Your task to perform on an android device: Check the news Image 0: 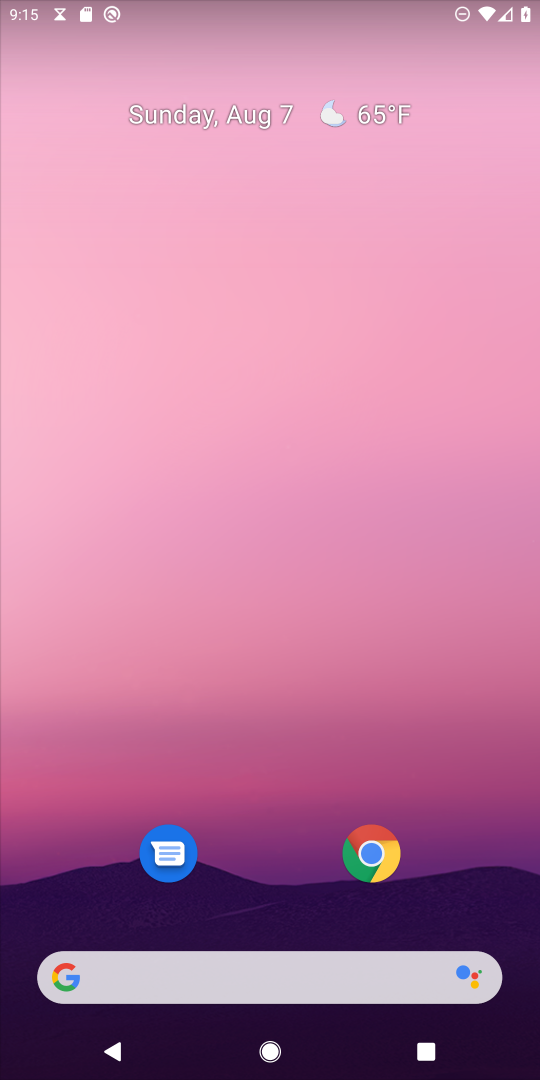
Step 0: drag from (216, 918) to (229, 324)
Your task to perform on an android device: Check the news Image 1: 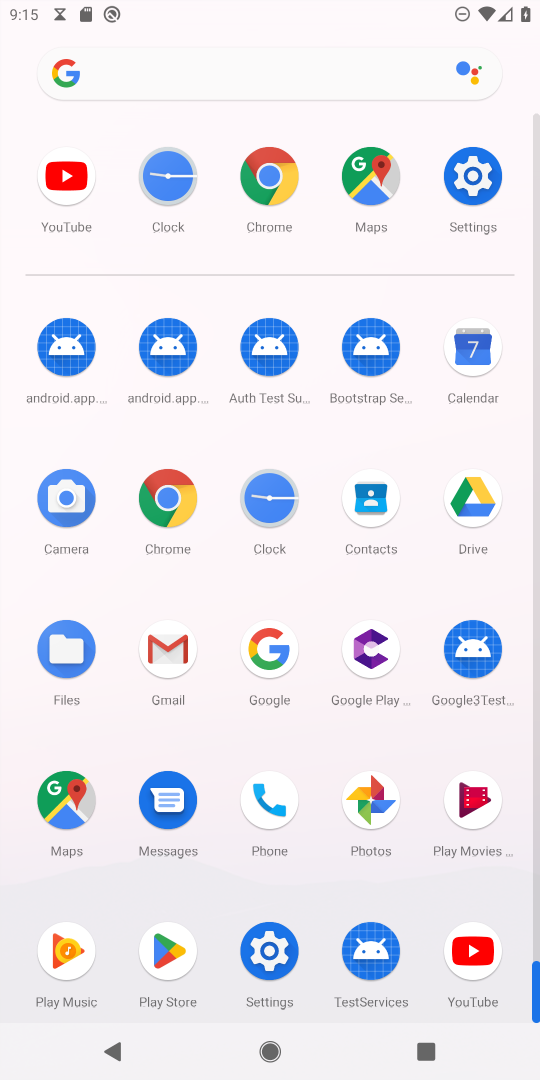
Step 1: click (249, 163)
Your task to perform on an android device: Check the news Image 2: 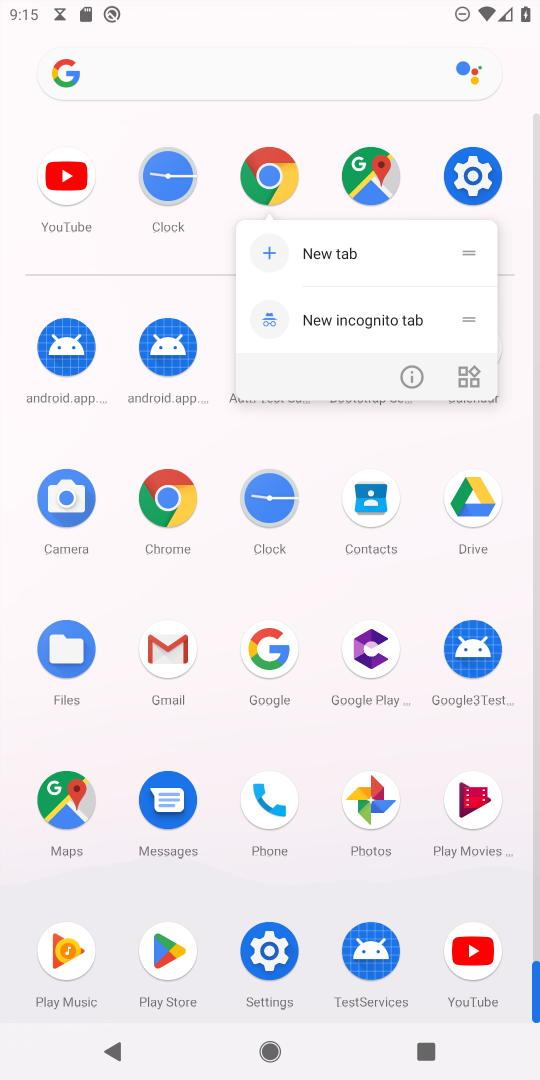
Step 2: click (272, 186)
Your task to perform on an android device: Check the news Image 3: 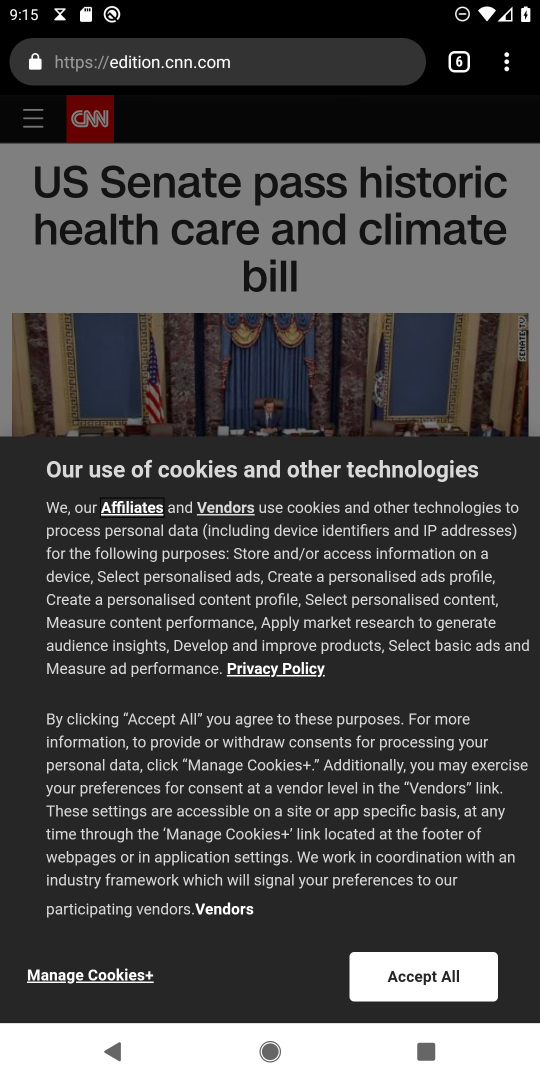
Step 3: click (506, 80)
Your task to perform on an android device: Check the news Image 4: 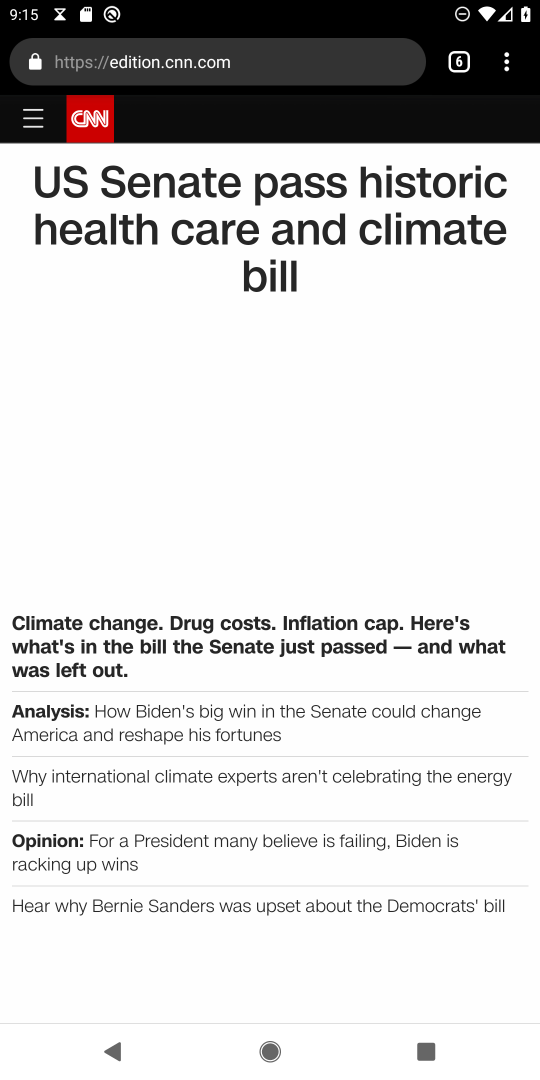
Step 4: click (506, 74)
Your task to perform on an android device: Check the news Image 5: 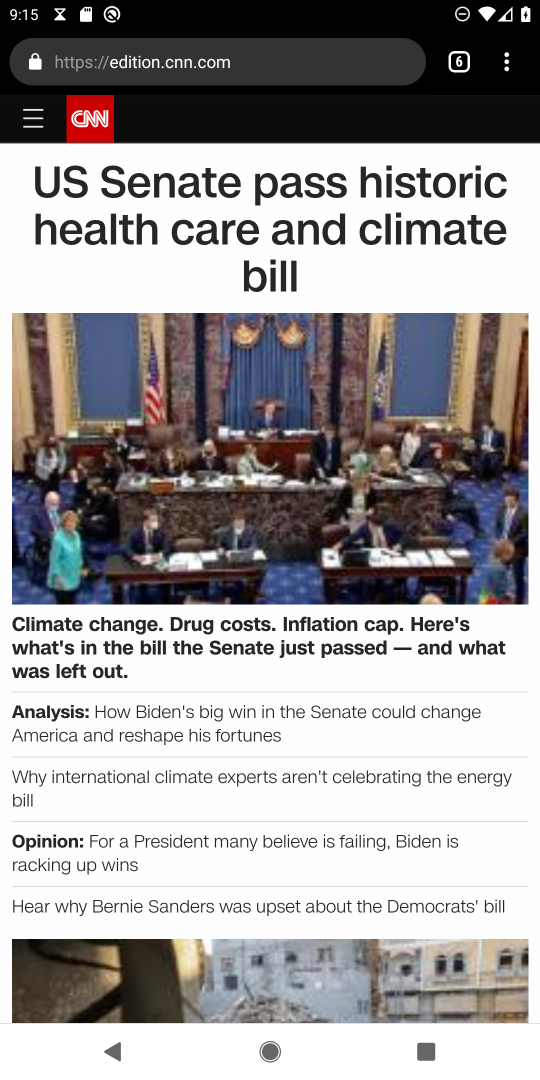
Step 5: click (503, 49)
Your task to perform on an android device: Check the news Image 6: 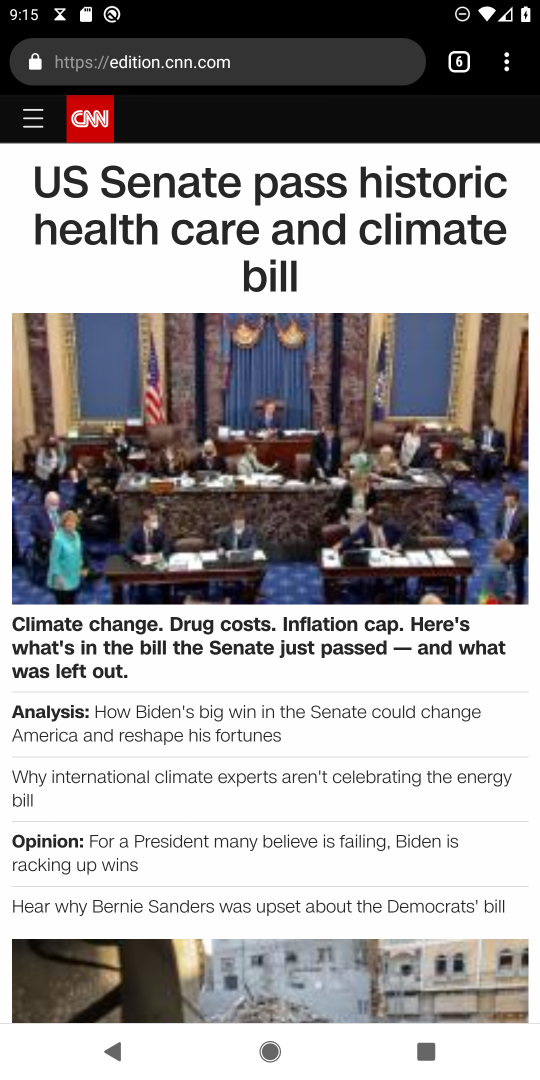
Step 6: click (519, 67)
Your task to perform on an android device: Check the news Image 7: 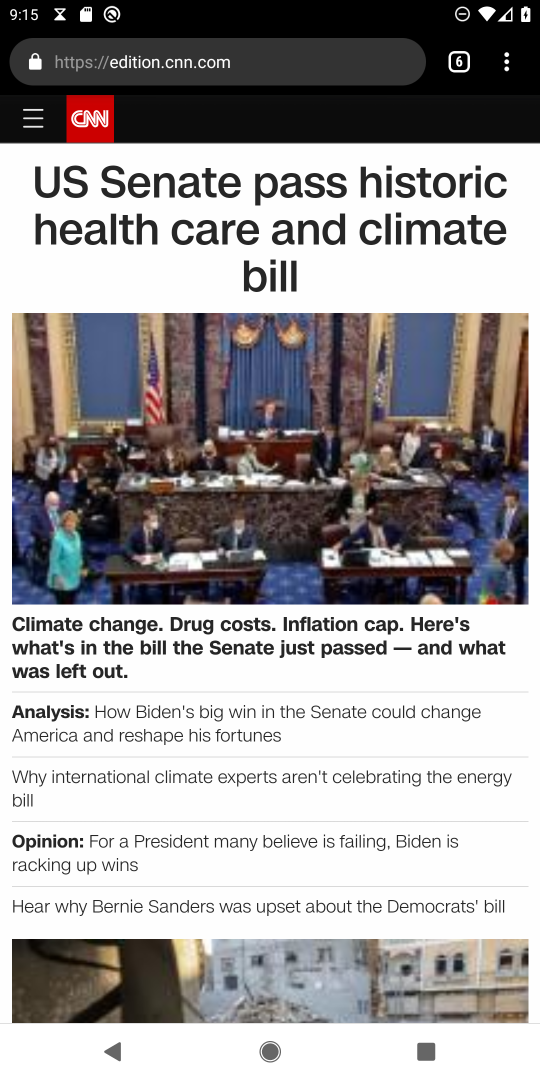
Step 7: click (519, 67)
Your task to perform on an android device: Check the news Image 8: 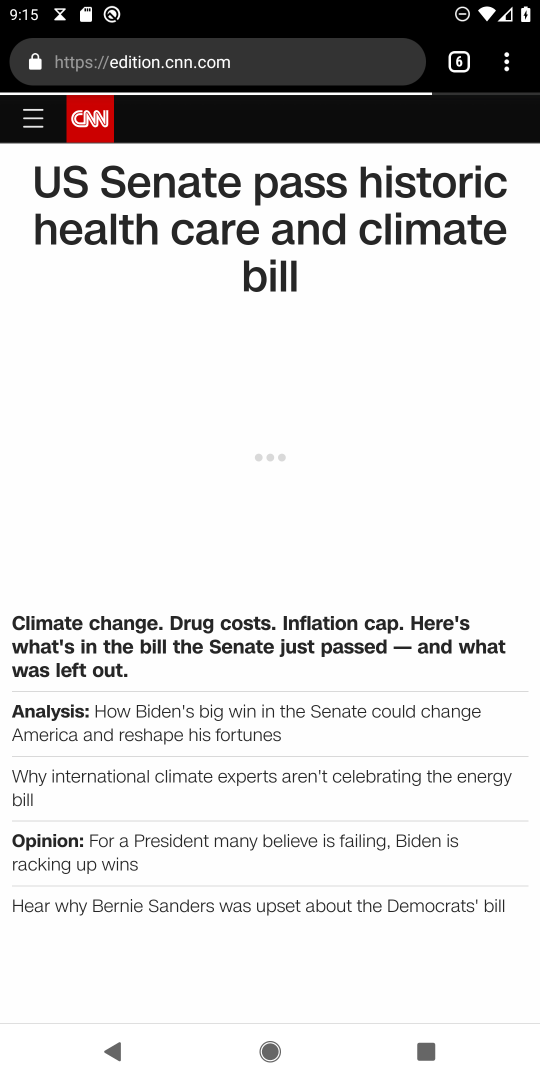
Step 8: click (519, 67)
Your task to perform on an android device: Check the news Image 9: 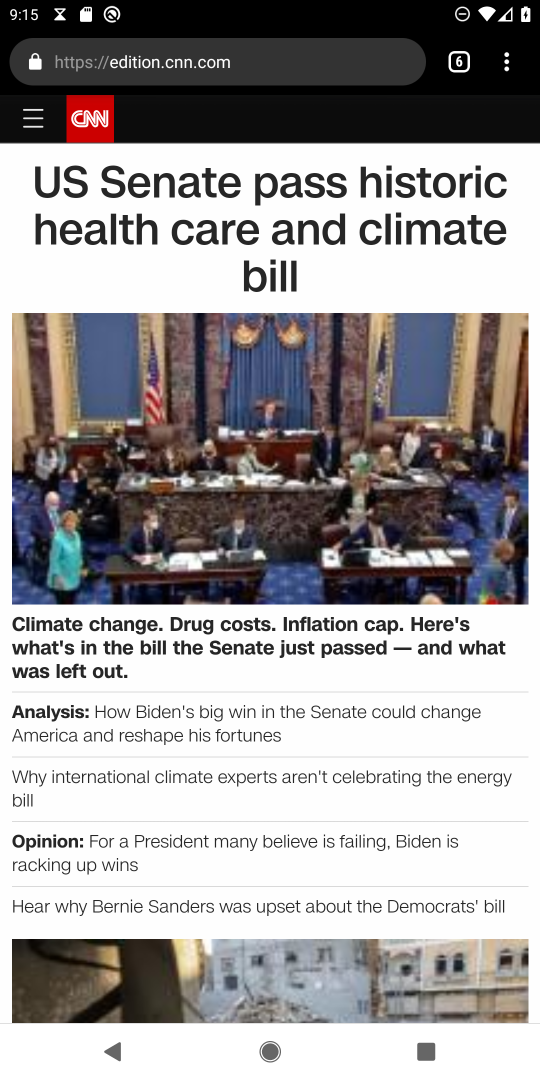
Step 9: click (498, 60)
Your task to perform on an android device: Check the news Image 10: 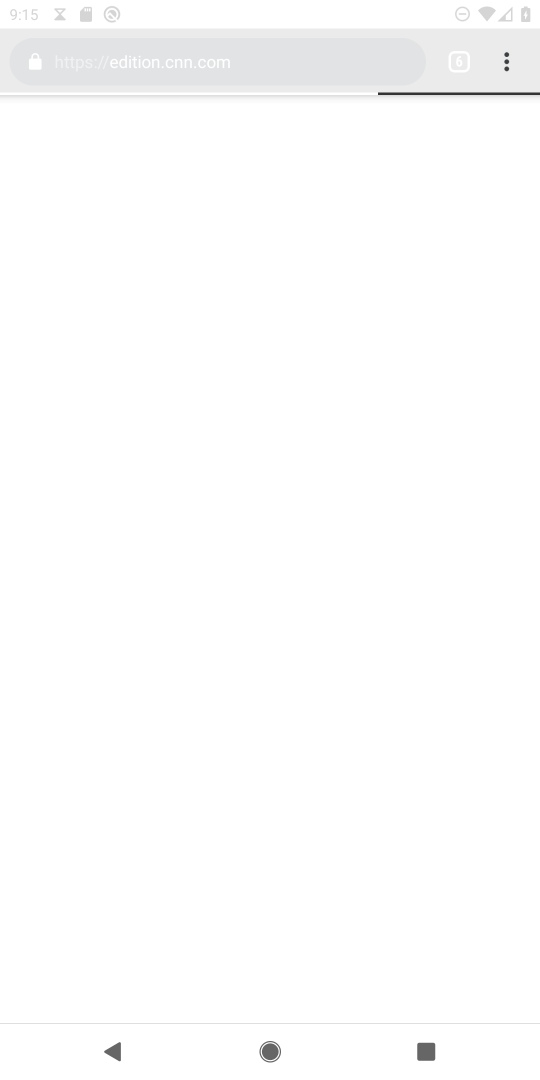
Step 10: click (523, 55)
Your task to perform on an android device: Check the news Image 11: 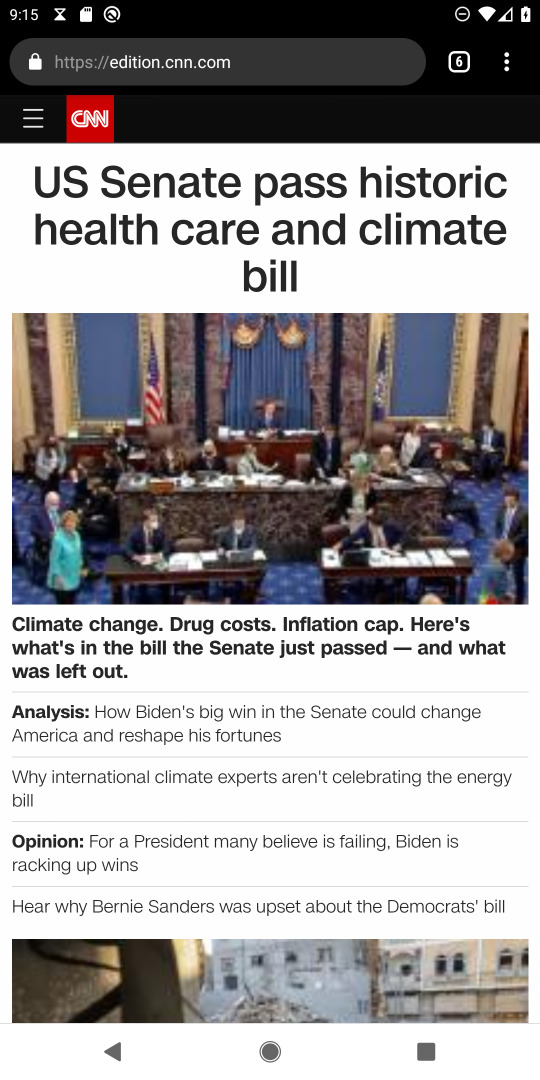
Step 11: click (501, 73)
Your task to perform on an android device: Check the news Image 12: 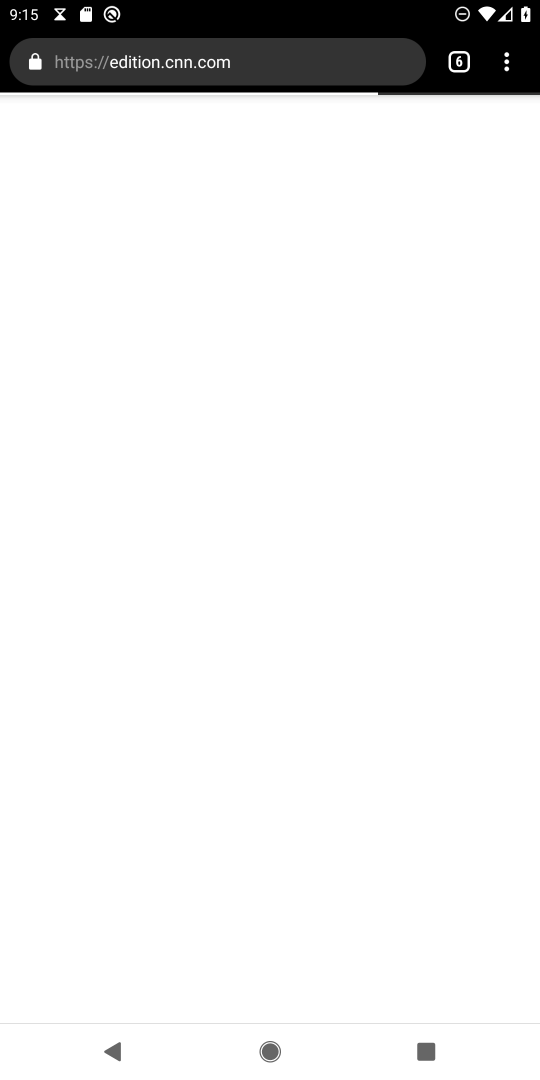
Step 12: click (504, 67)
Your task to perform on an android device: Check the news Image 13: 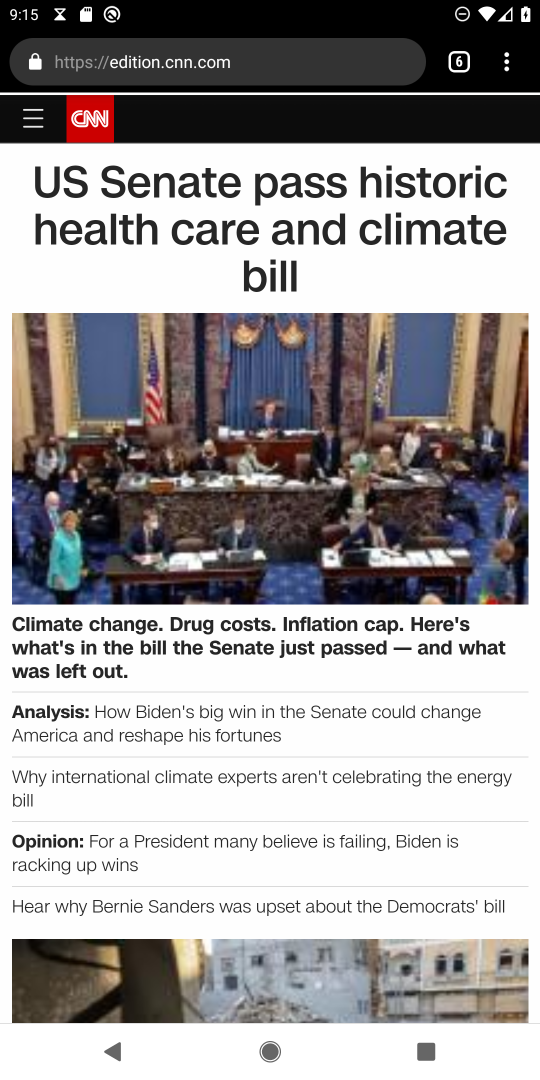
Step 13: click (504, 67)
Your task to perform on an android device: Check the news Image 14: 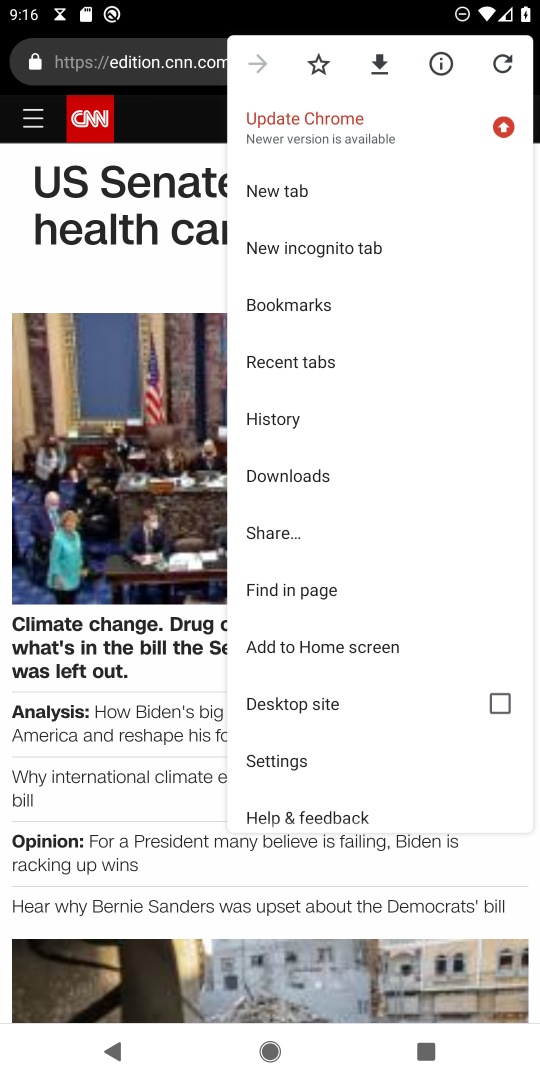
Step 14: click (318, 202)
Your task to perform on an android device: Check the news Image 15: 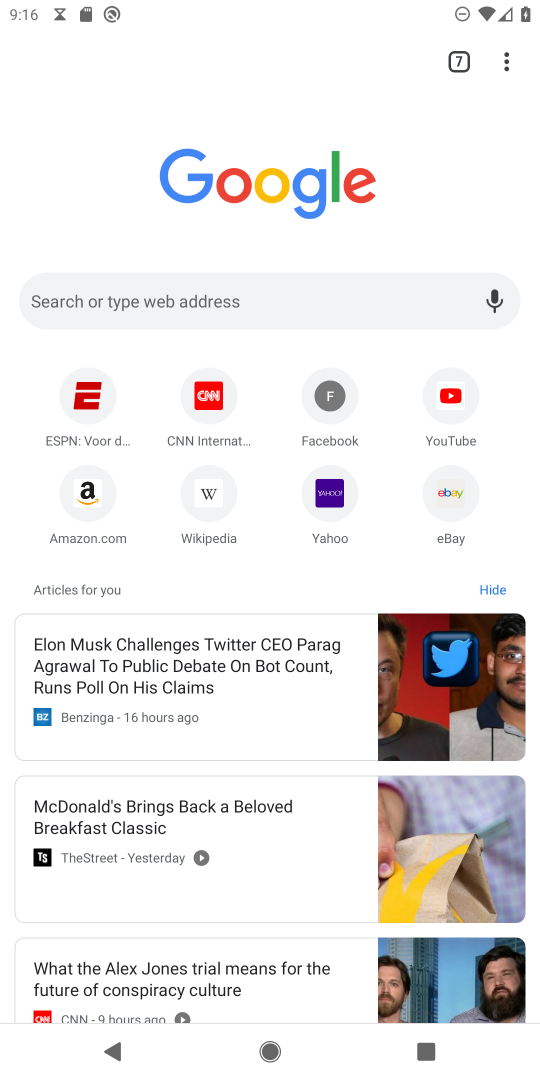
Step 15: click (279, 287)
Your task to perform on an android device: Check the news Image 16: 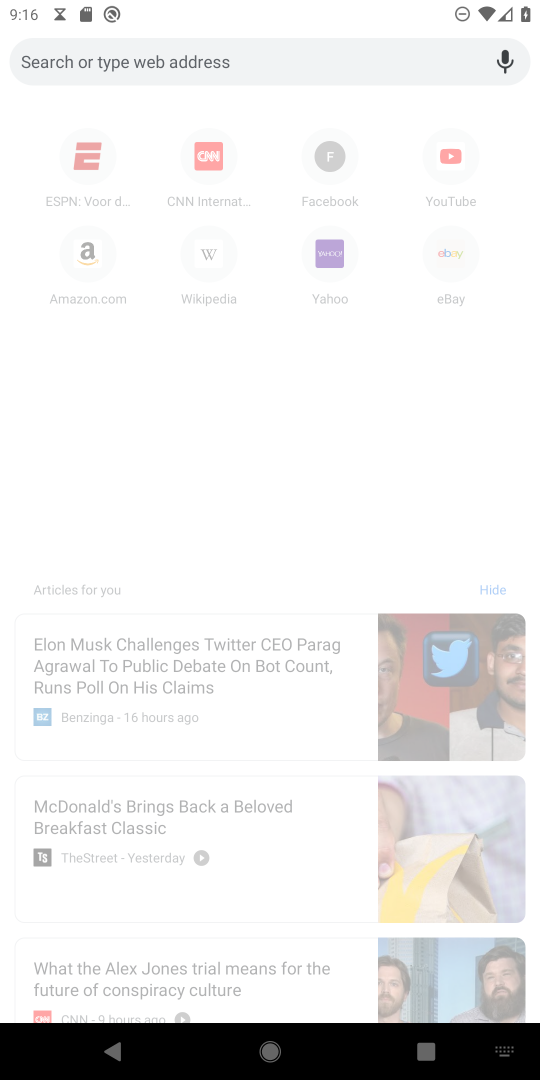
Step 16: type "Check the news "
Your task to perform on an android device: Check the news Image 17: 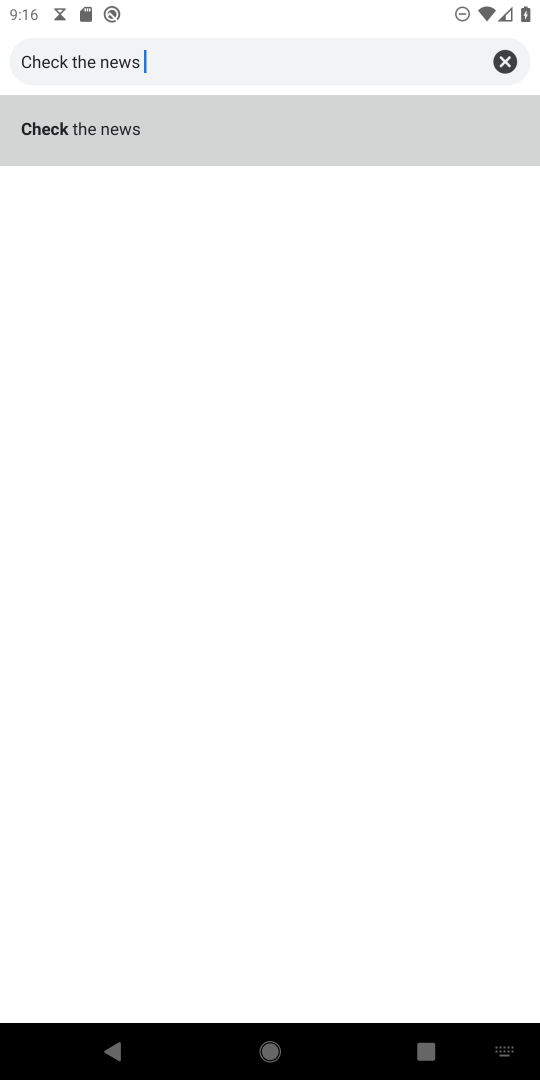
Step 17: click (179, 137)
Your task to perform on an android device: Check the news Image 18: 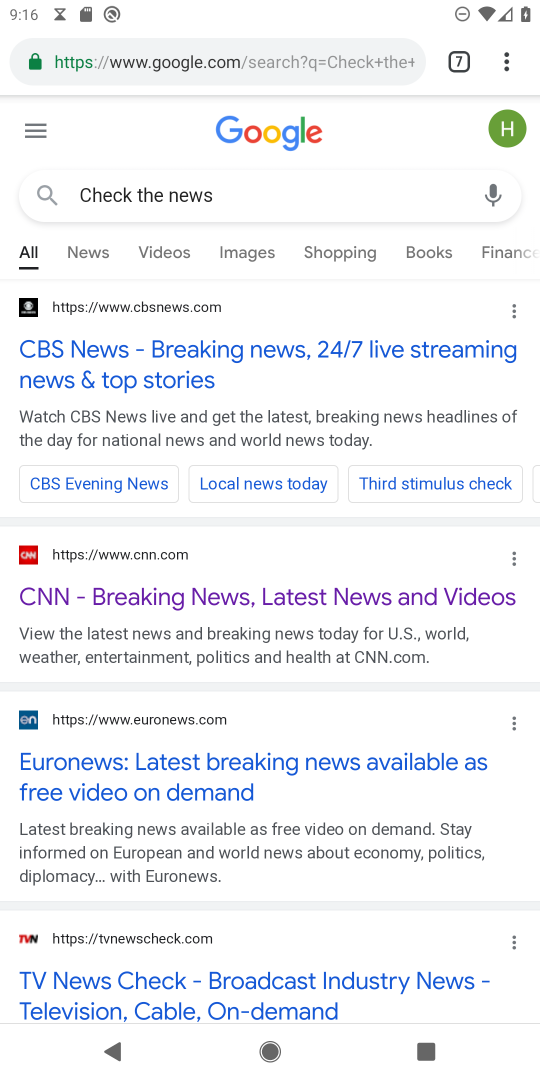
Step 18: task complete